Your task to perform on an android device: set the timer Image 0: 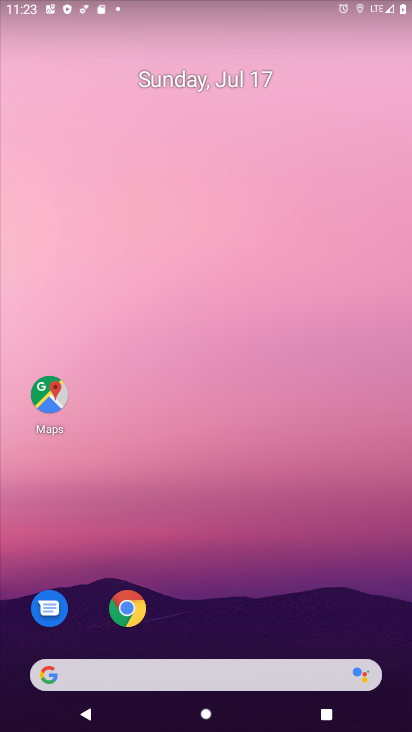
Step 0: drag from (238, 631) to (160, 67)
Your task to perform on an android device: set the timer Image 1: 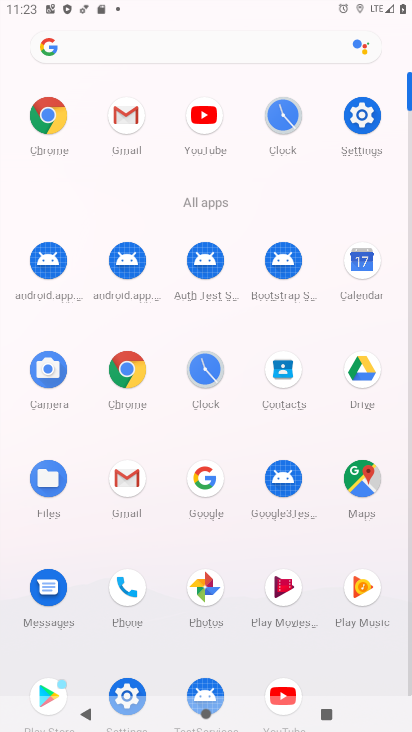
Step 1: click (205, 380)
Your task to perform on an android device: set the timer Image 2: 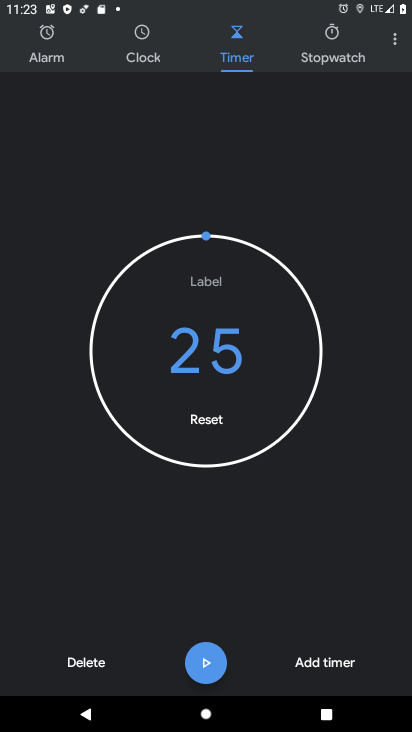
Step 2: click (312, 661)
Your task to perform on an android device: set the timer Image 3: 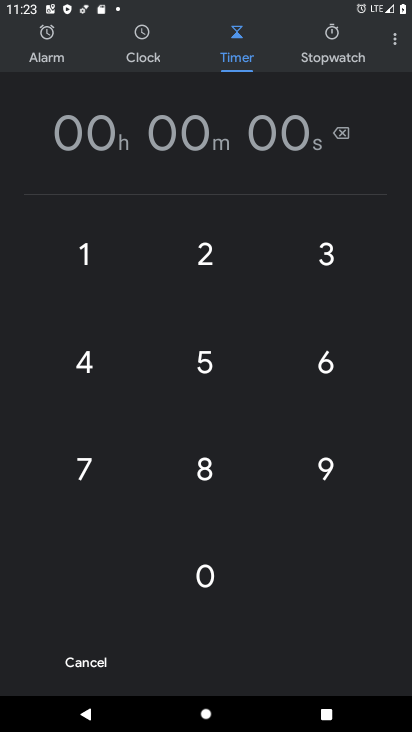
Step 3: click (197, 668)
Your task to perform on an android device: set the timer Image 4: 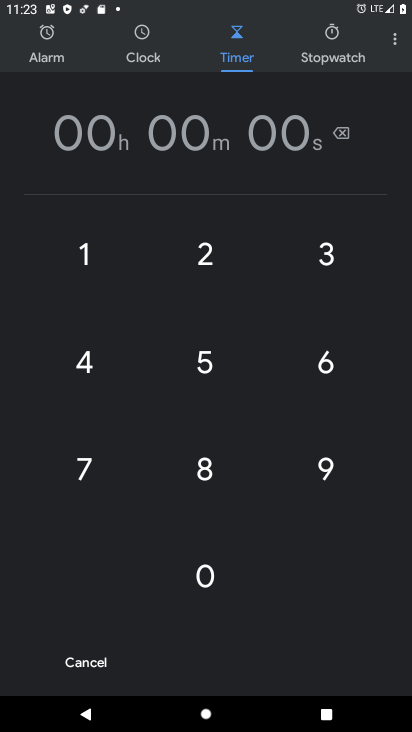
Step 4: click (213, 581)
Your task to perform on an android device: set the timer Image 5: 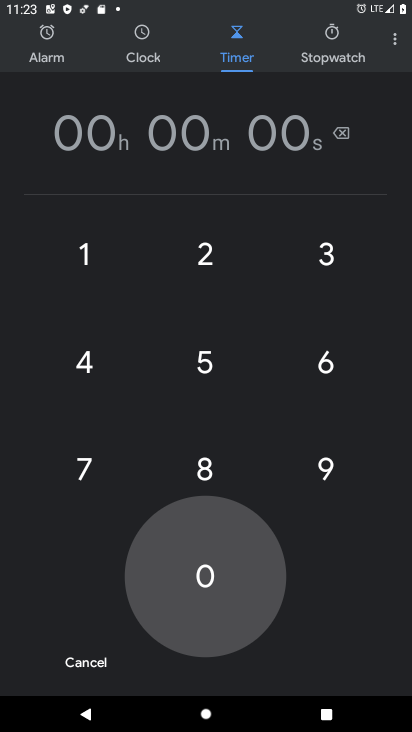
Step 5: click (214, 460)
Your task to perform on an android device: set the timer Image 6: 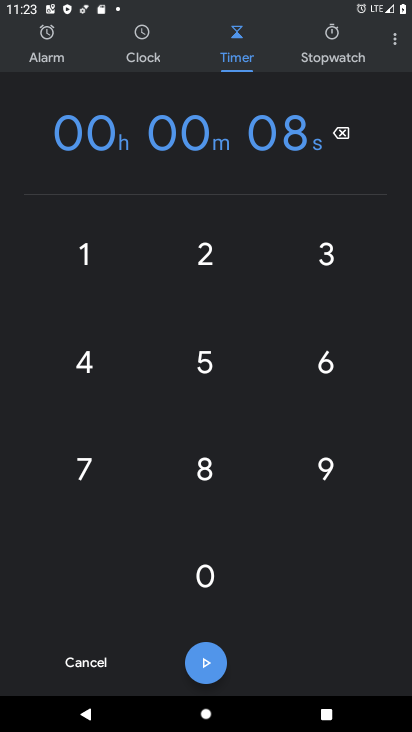
Step 6: click (212, 656)
Your task to perform on an android device: set the timer Image 7: 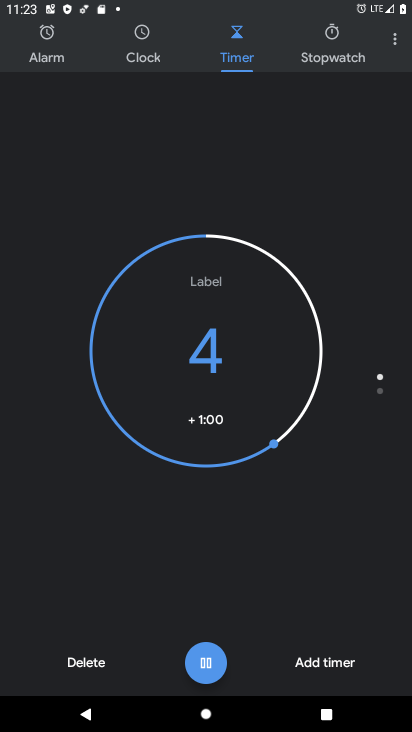
Step 7: task complete